Your task to perform on an android device: open app "AliExpress" Image 0: 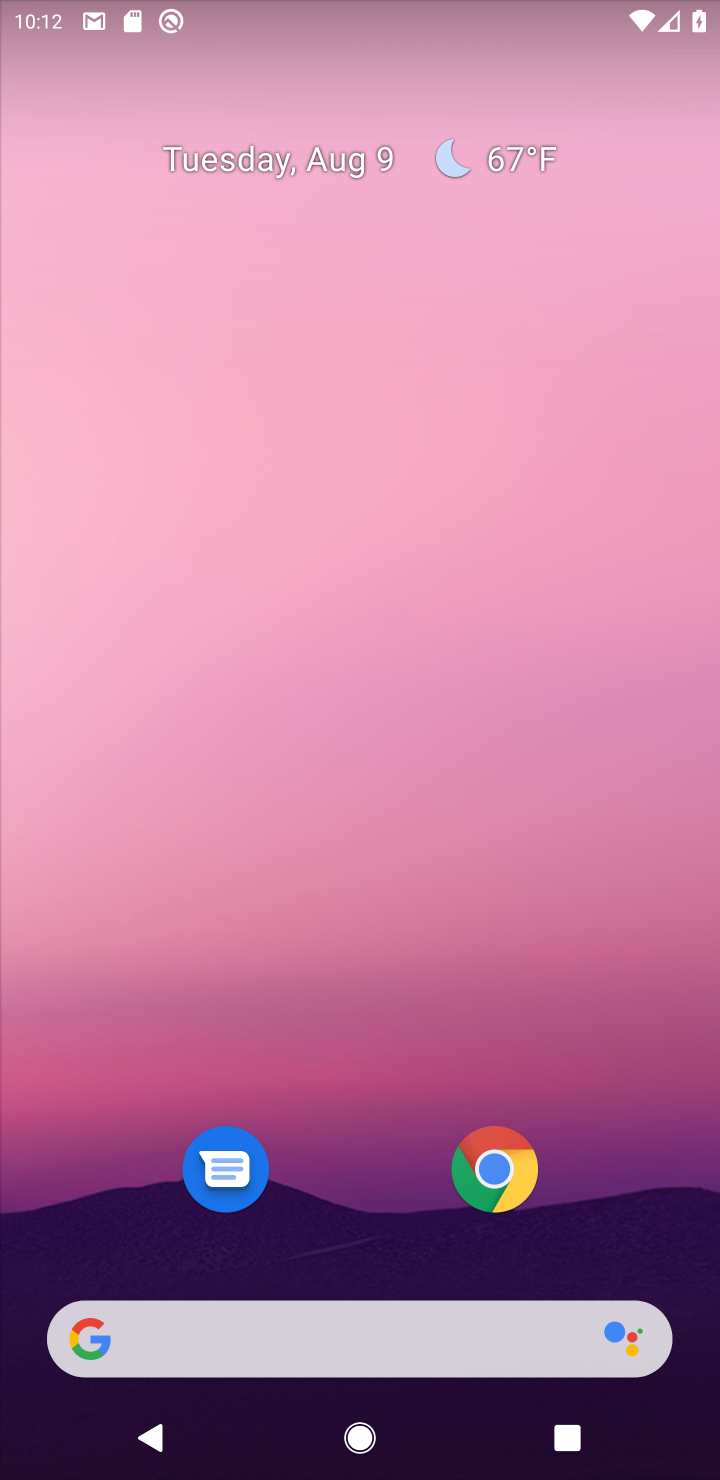
Step 0: press home button
Your task to perform on an android device: open app "AliExpress" Image 1: 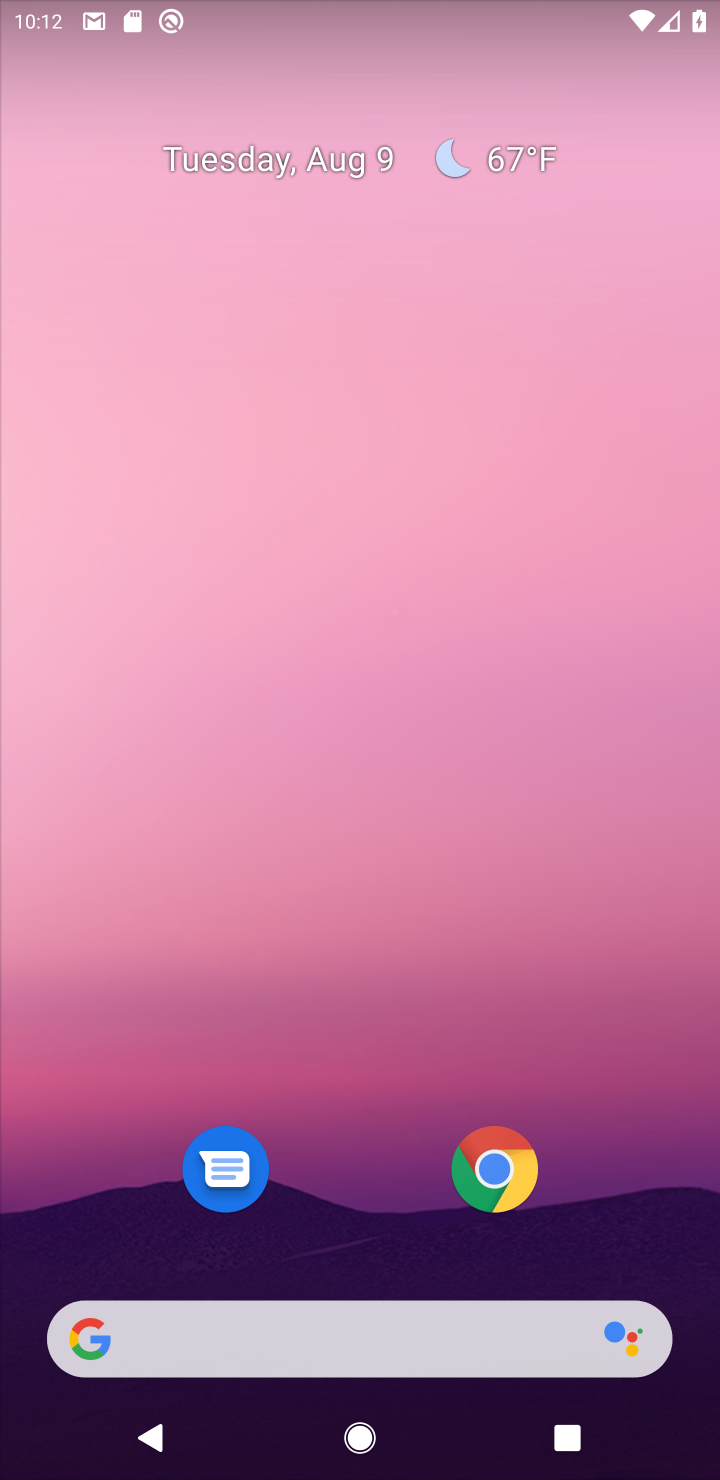
Step 1: drag from (619, 1203) to (688, 210)
Your task to perform on an android device: open app "AliExpress" Image 2: 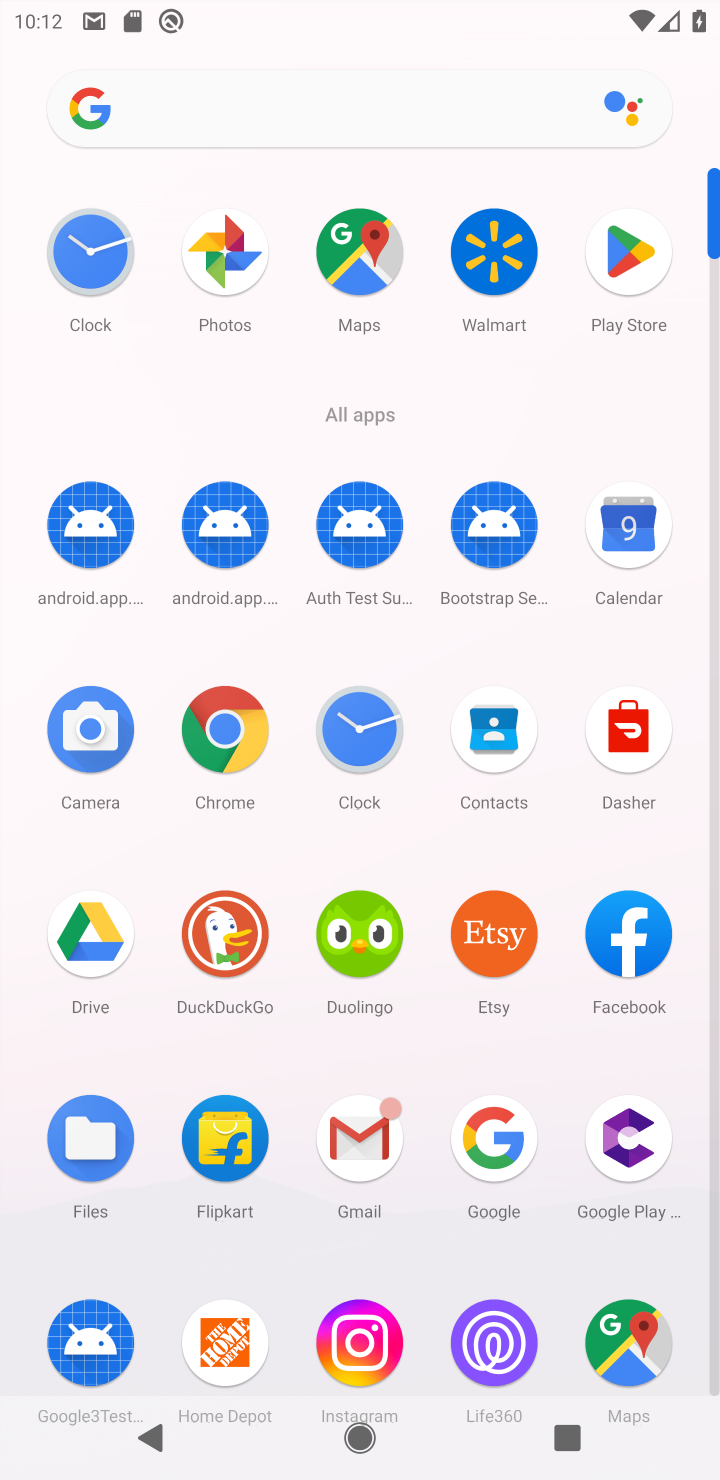
Step 2: click (616, 233)
Your task to perform on an android device: open app "AliExpress" Image 3: 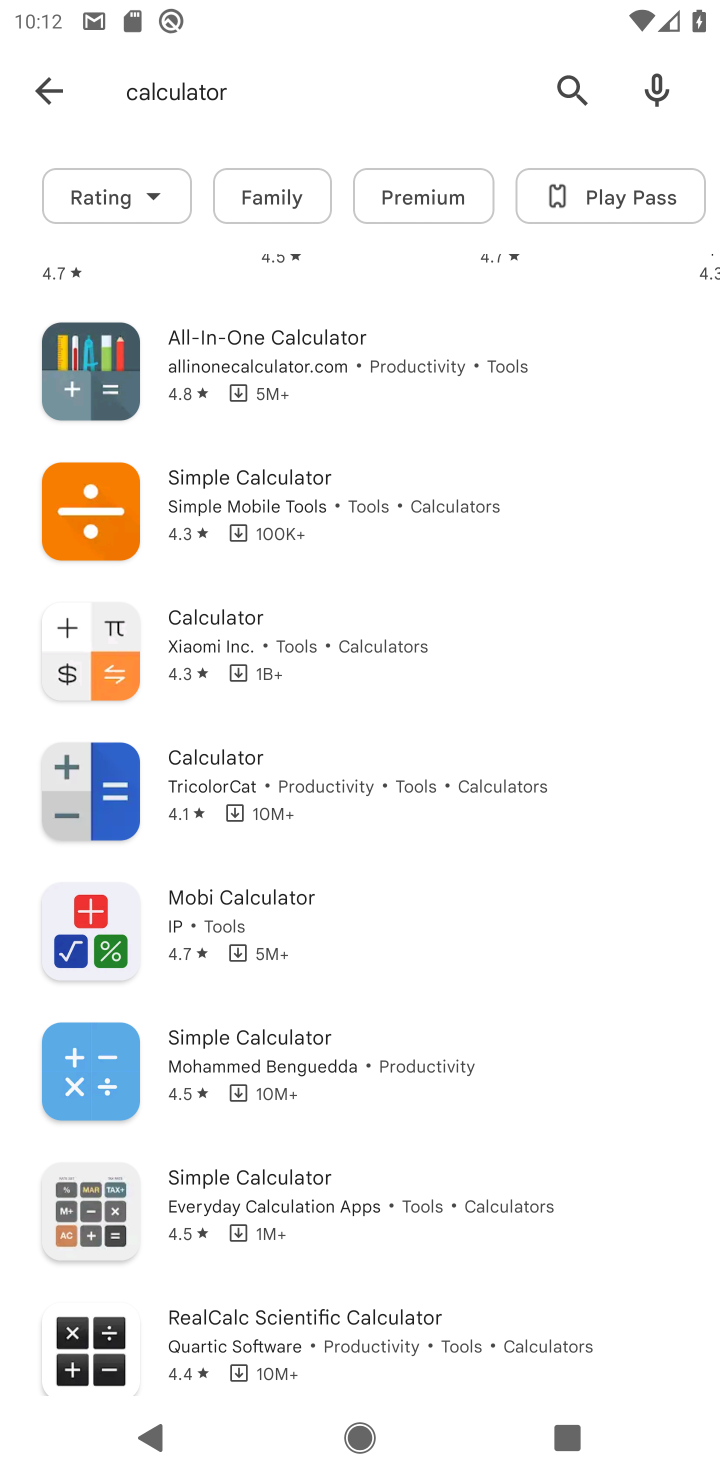
Step 3: click (568, 83)
Your task to perform on an android device: open app "AliExpress" Image 4: 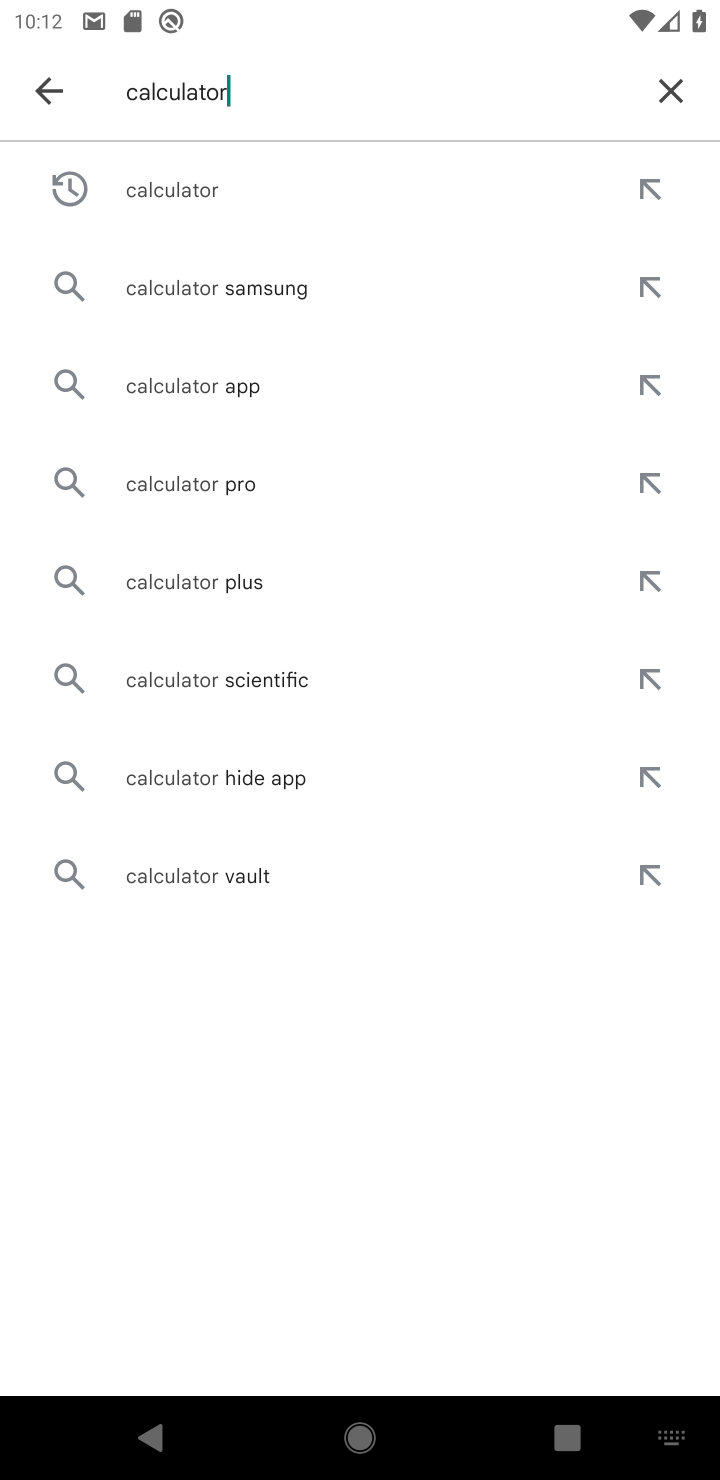
Step 4: click (668, 93)
Your task to perform on an android device: open app "AliExpress" Image 5: 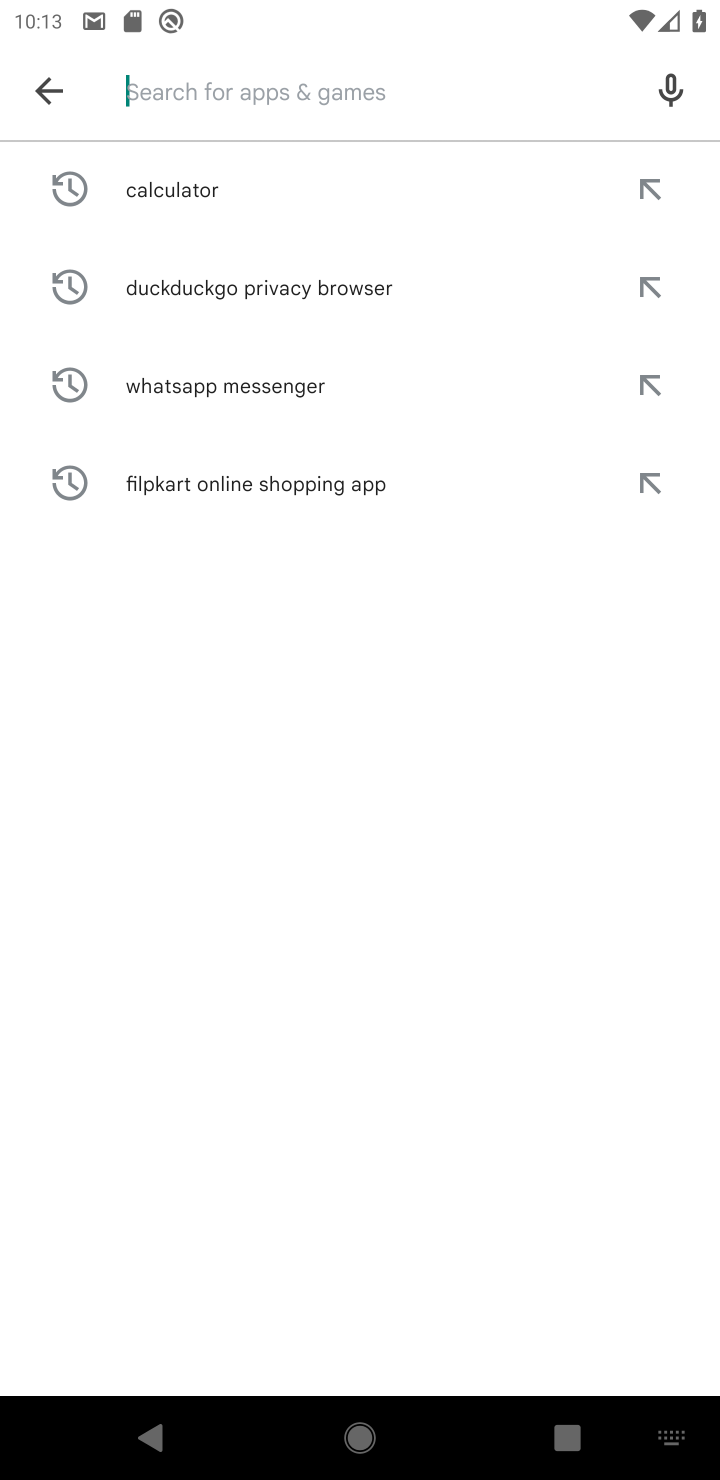
Step 5: type "aliexpress"
Your task to perform on an android device: open app "AliExpress" Image 6: 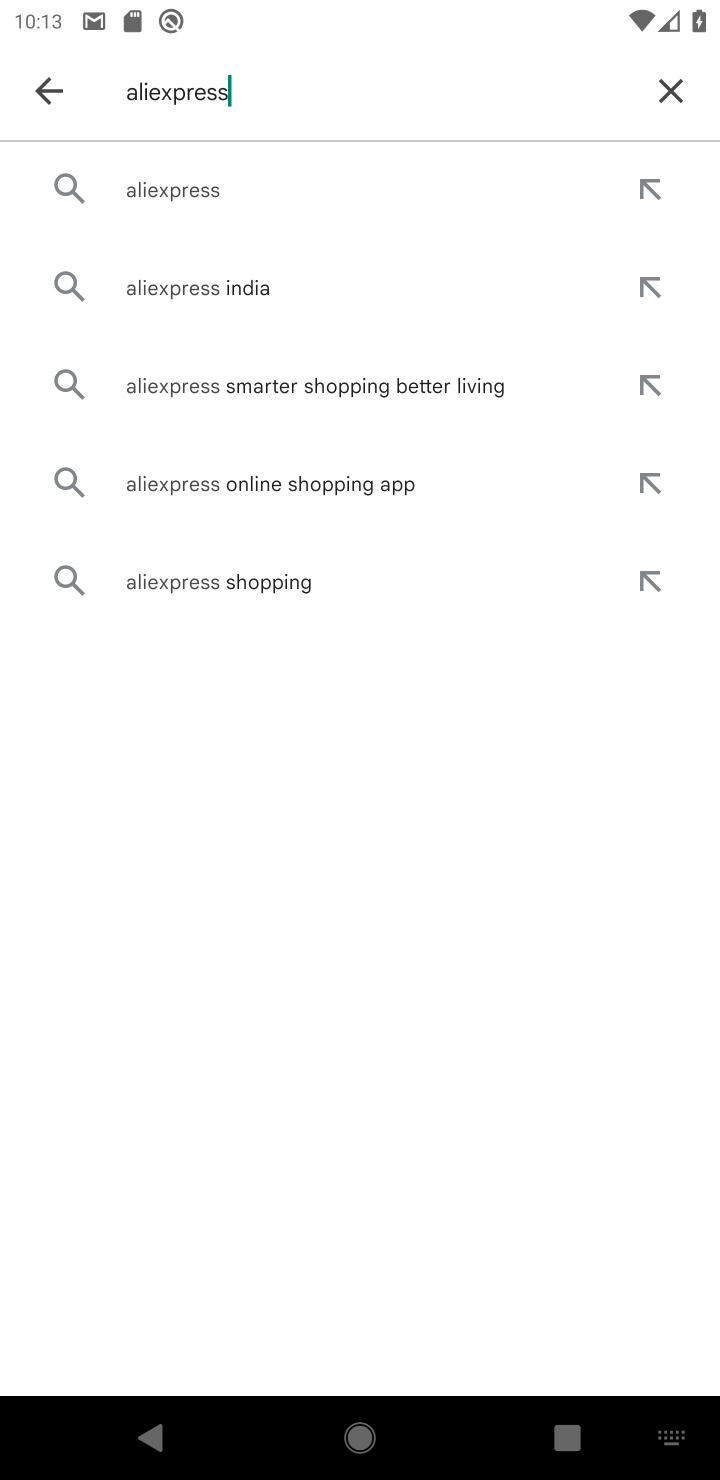
Step 6: click (217, 191)
Your task to perform on an android device: open app "AliExpress" Image 7: 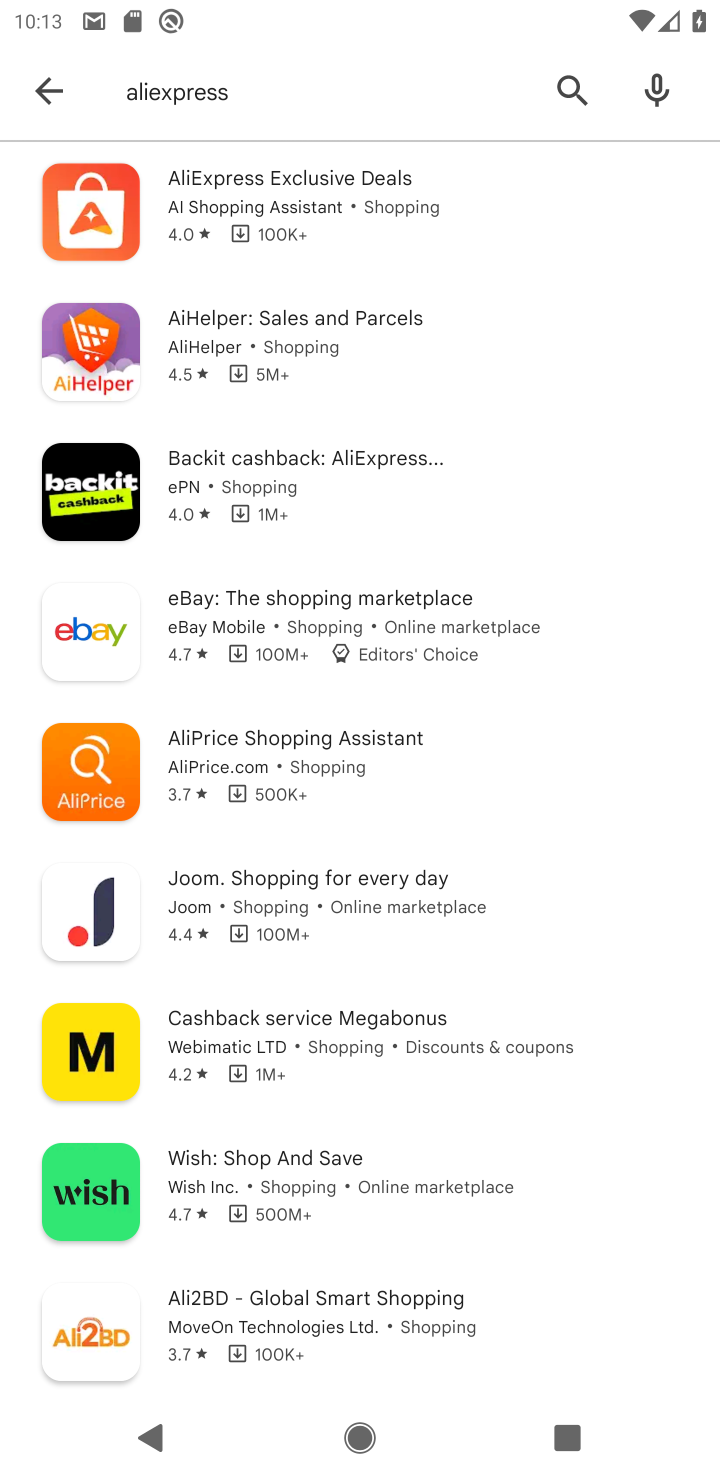
Step 7: task complete